Your task to perform on an android device: Open my contact list Image 0: 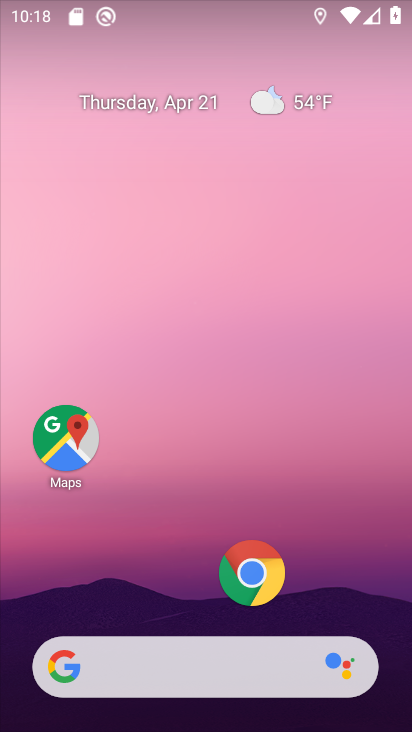
Step 0: drag from (186, 608) to (198, 60)
Your task to perform on an android device: Open my contact list Image 1: 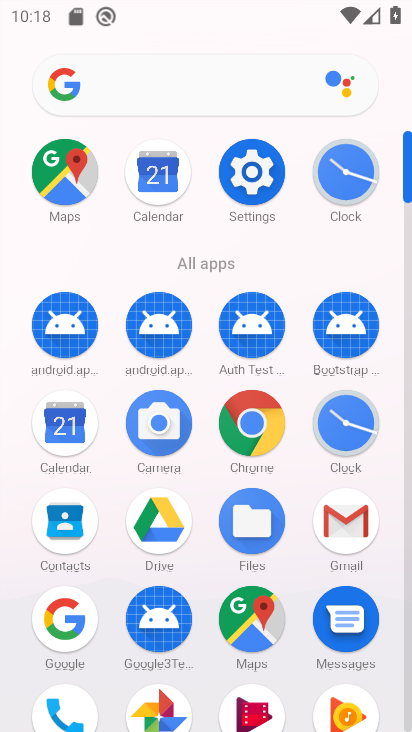
Step 1: click (63, 533)
Your task to perform on an android device: Open my contact list Image 2: 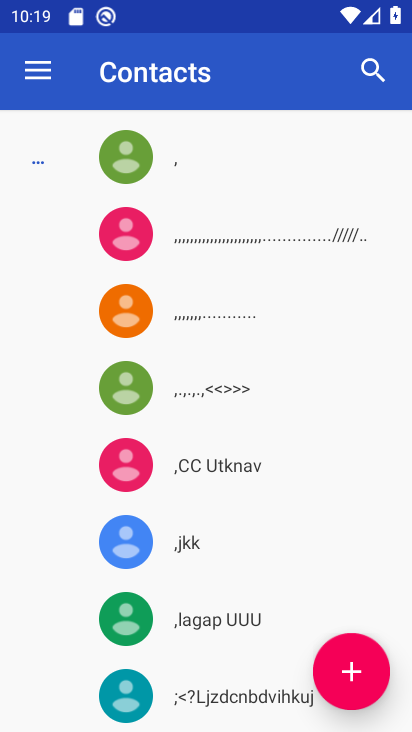
Step 2: task complete